Your task to perform on an android device: Open display settings Image 0: 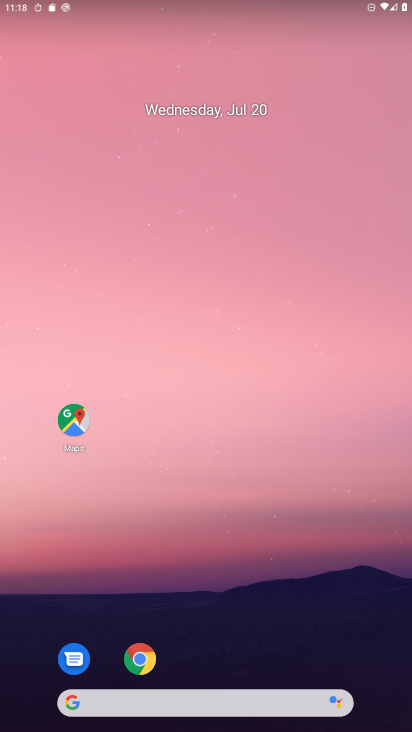
Step 0: drag from (302, 589) to (247, 64)
Your task to perform on an android device: Open display settings Image 1: 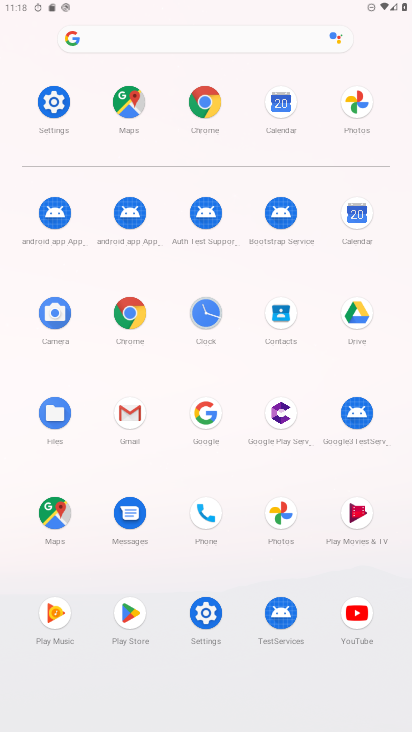
Step 1: click (52, 98)
Your task to perform on an android device: Open display settings Image 2: 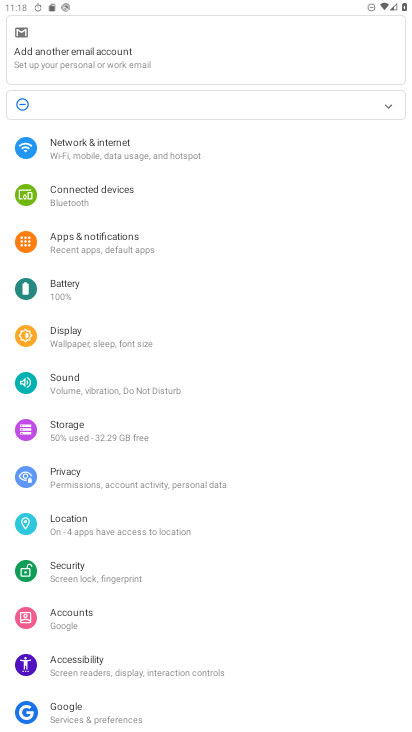
Step 2: click (90, 347)
Your task to perform on an android device: Open display settings Image 3: 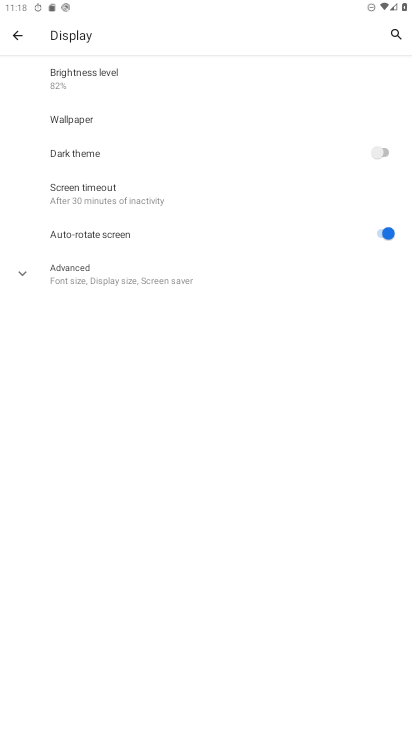
Step 3: task complete